Your task to perform on an android device: Open sound settings Image 0: 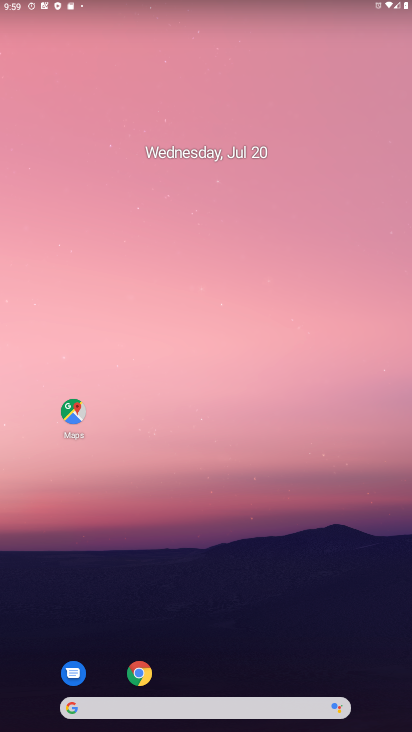
Step 0: drag from (213, 727) to (203, 104)
Your task to perform on an android device: Open sound settings Image 1: 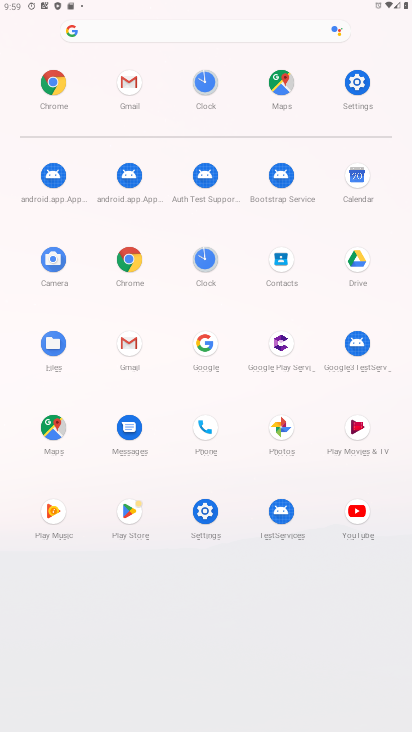
Step 1: click (206, 507)
Your task to perform on an android device: Open sound settings Image 2: 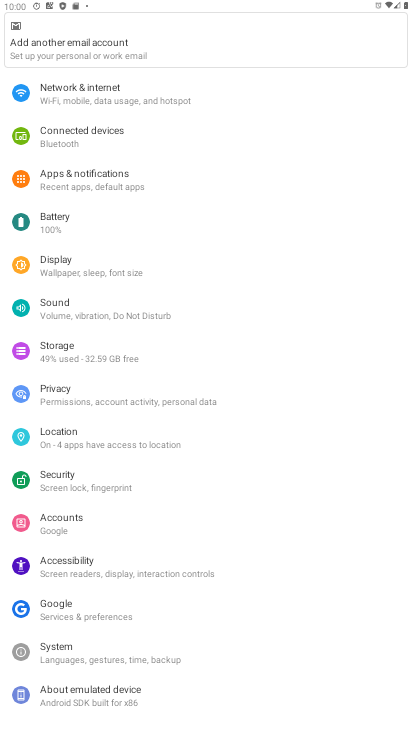
Step 2: click (58, 308)
Your task to perform on an android device: Open sound settings Image 3: 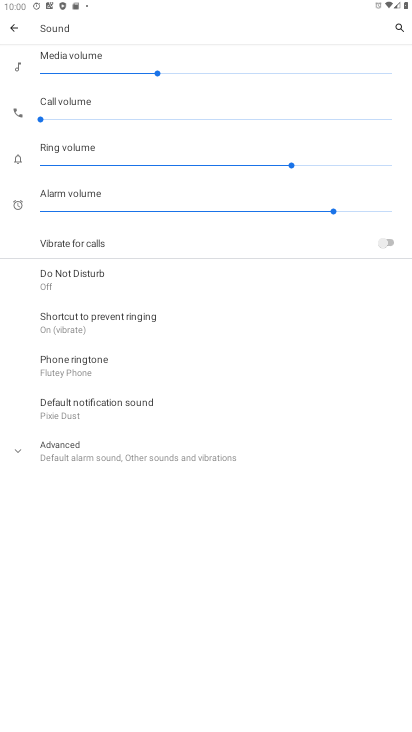
Step 3: task complete